Your task to perform on an android device: change your default location settings in chrome Image 0: 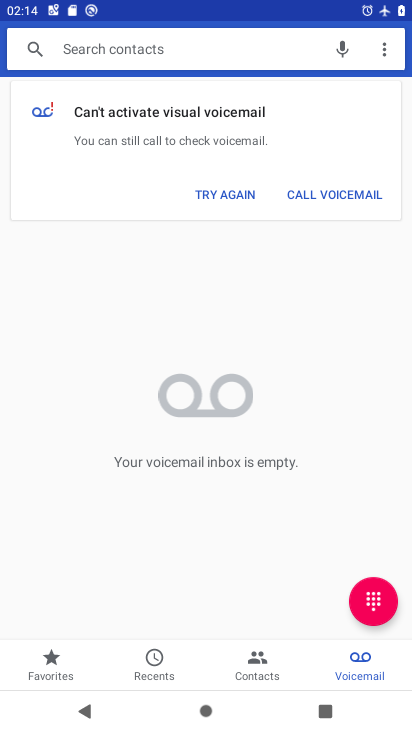
Step 0: press home button
Your task to perform on an android device: change your default location settings in chrome Image 1: 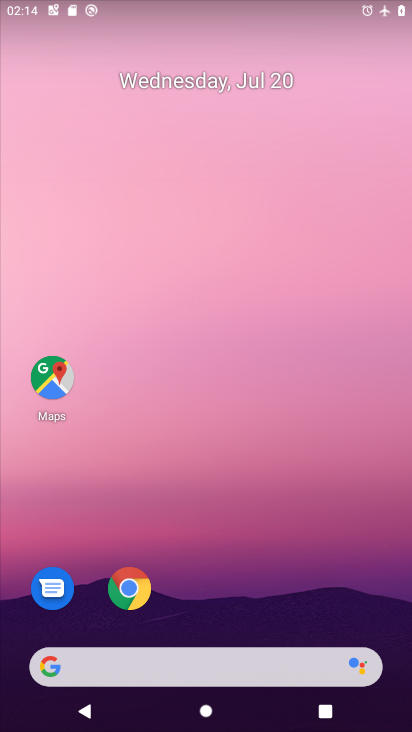
Step 1: drag from (233, 612) to (264, 145)
Your task to perform on an android device: change your default location settings in chrome Image 2: 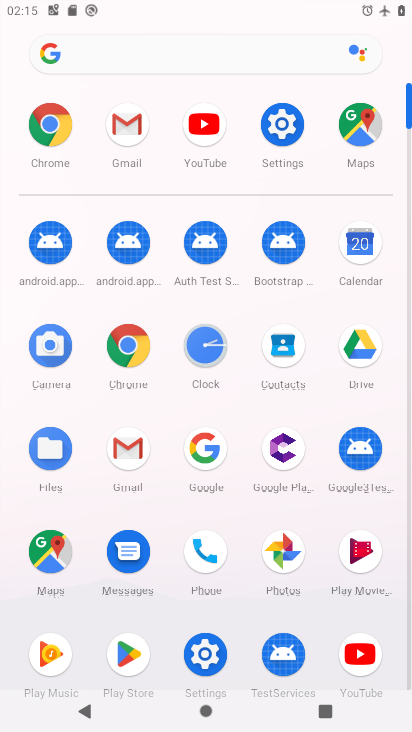
Step 2: click (132, 342)
Your task to perform on an android device: change your default location settings in chrome Image 3: 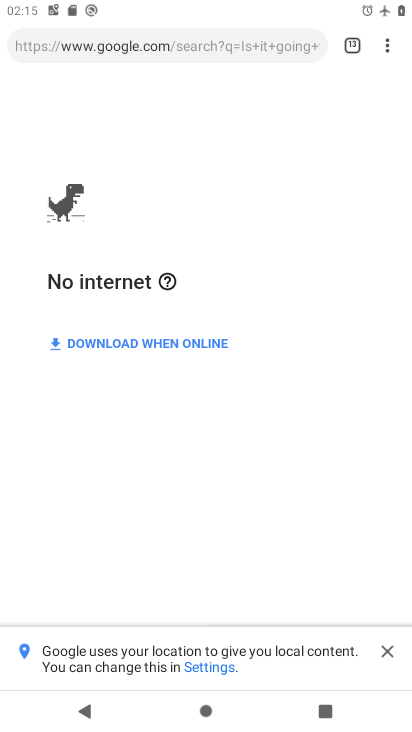
Step 3: click (385, 41)
Your task to perform on an android device: change your default location settings in chrome Image 4: 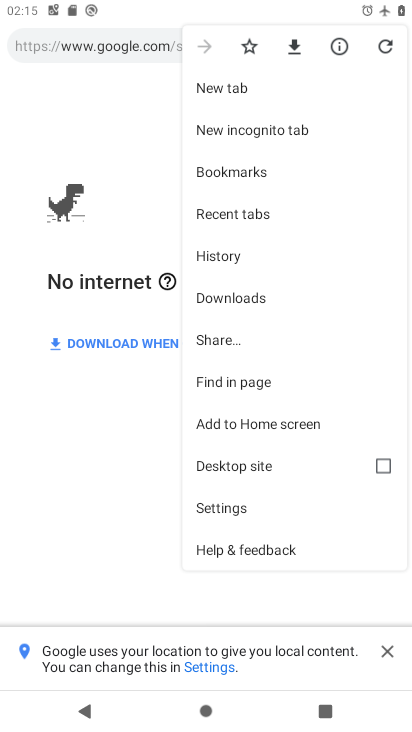
Step 4: click (245, 511)
Your task to perform on an android device: change your default location settings in chrome Image 5: 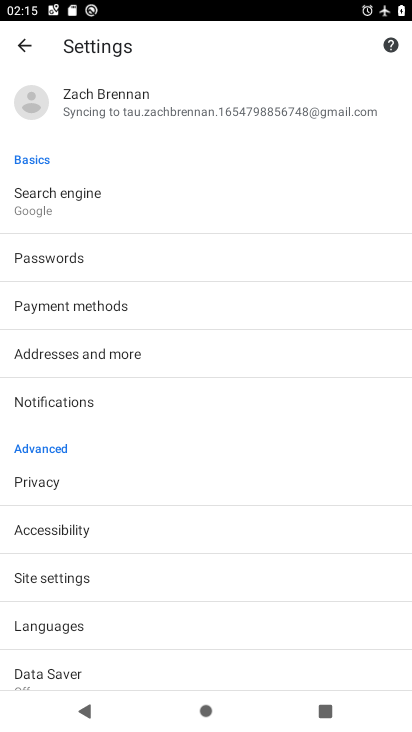
Step 5: drag from (126, 585) to (152, 262)
Your task to perform on an android device: change your default location settings in chrome Image 6: 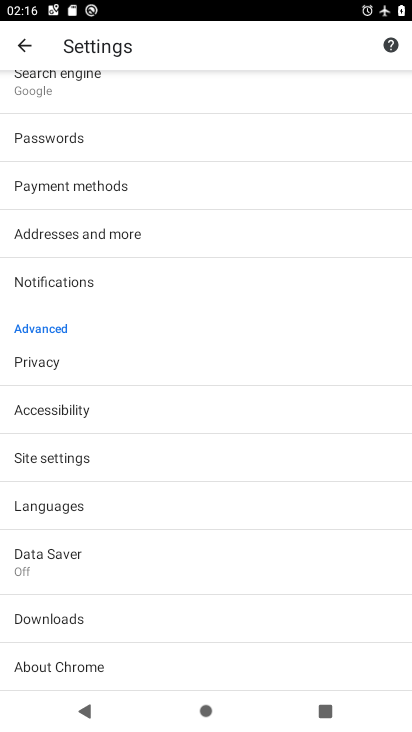
Step 6: click (100, 458)
Your task to perform on an android device: change your default location settings in chrome Image 7: 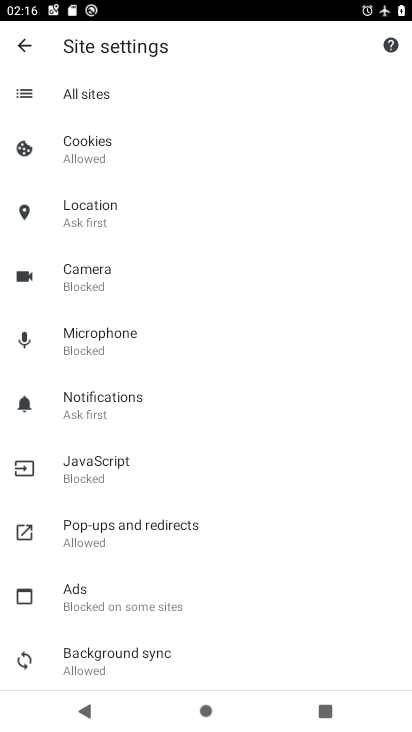
Step 7: drag from (113, 445) to (140, 64)
Your task to perform on an android device: change your default location settings in chrome Image 8: 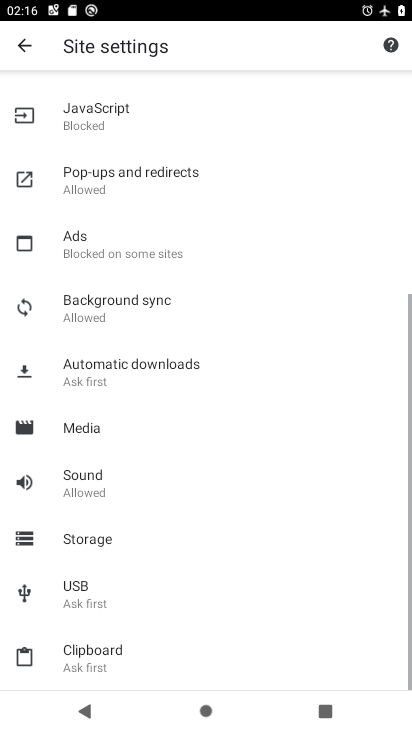
Step 8: drag from (120, 211) to (131, 675)
Your task to perform on an android device: change your default location settings in chrome Image 9: 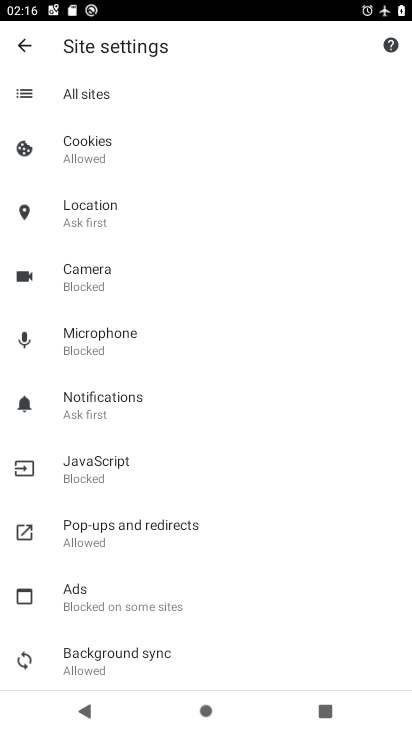
Step 9: click (109, 199)
Your task to perform on an android device: change your default location settings in chrome Image 10: 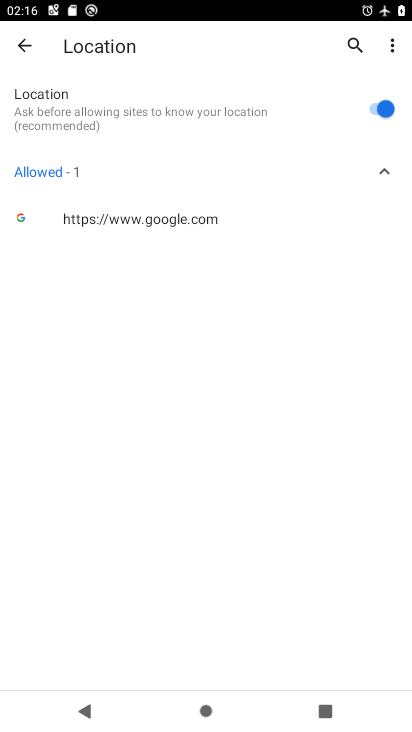
Step 10: task complete